Your task to perform on an android device: Toggle the flashlight Image 0: 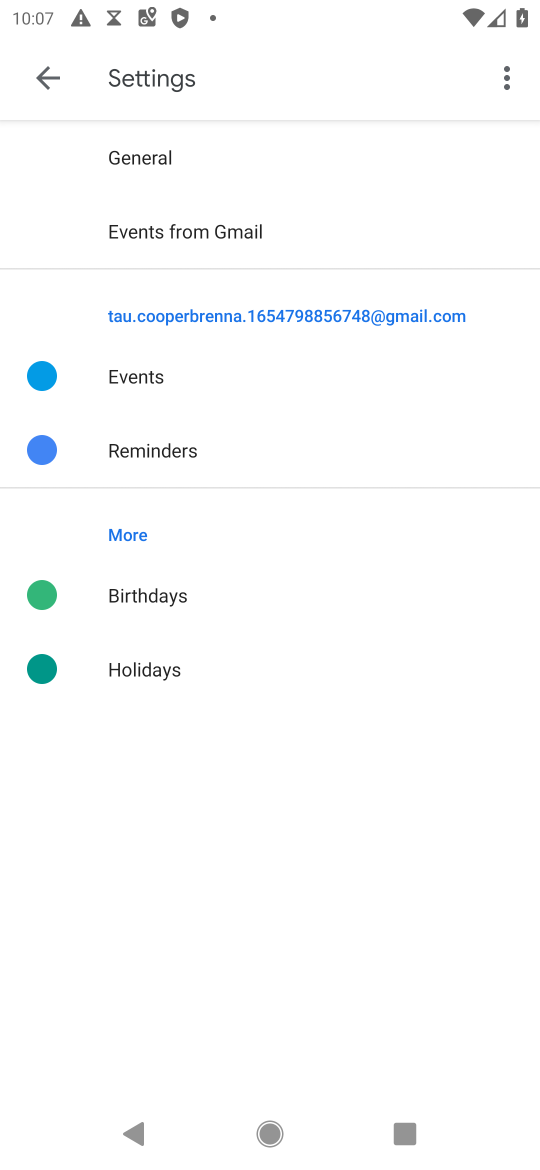
Step 0: press home button
Your task to perform on an android device: Toggle the flashlight Image 1: 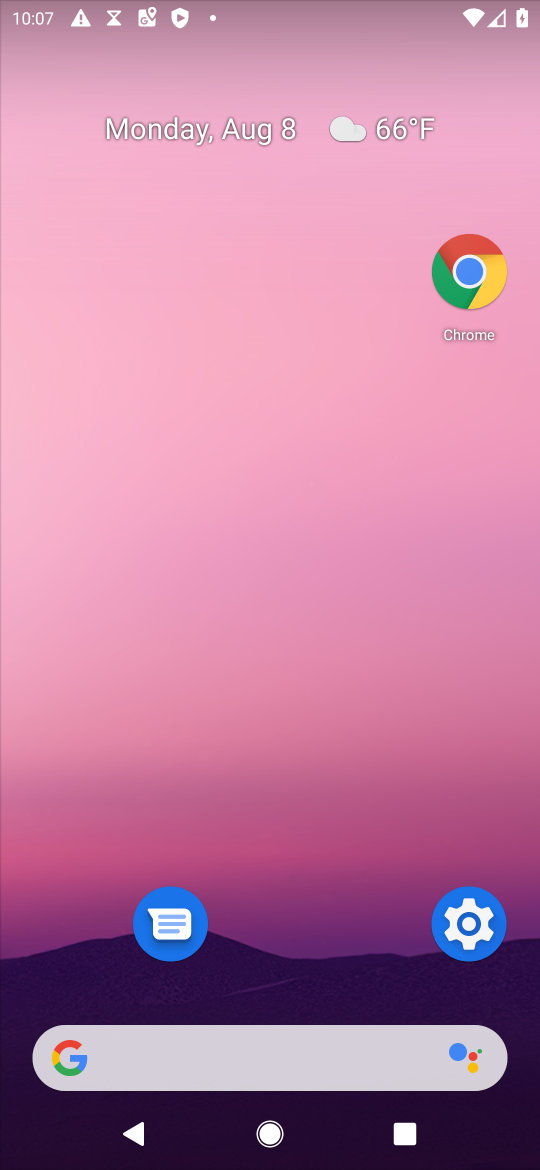
Step 1: task complete